Your task to perform on an android device: turn notification dots on Image 0: 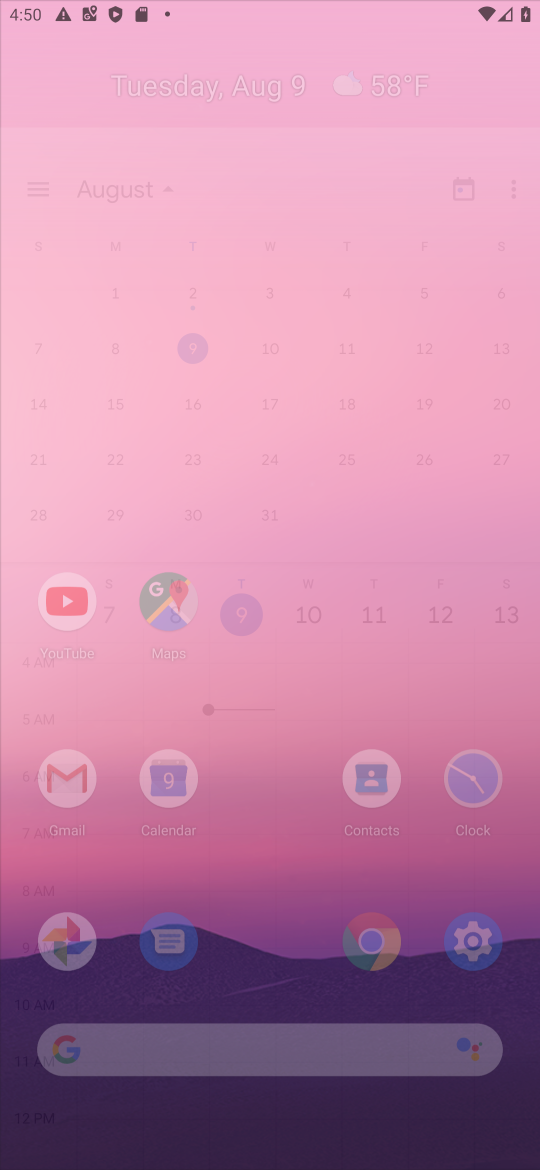
Step 0: press home button
Your task to perform on an android device: turn notification dots on Image 1: 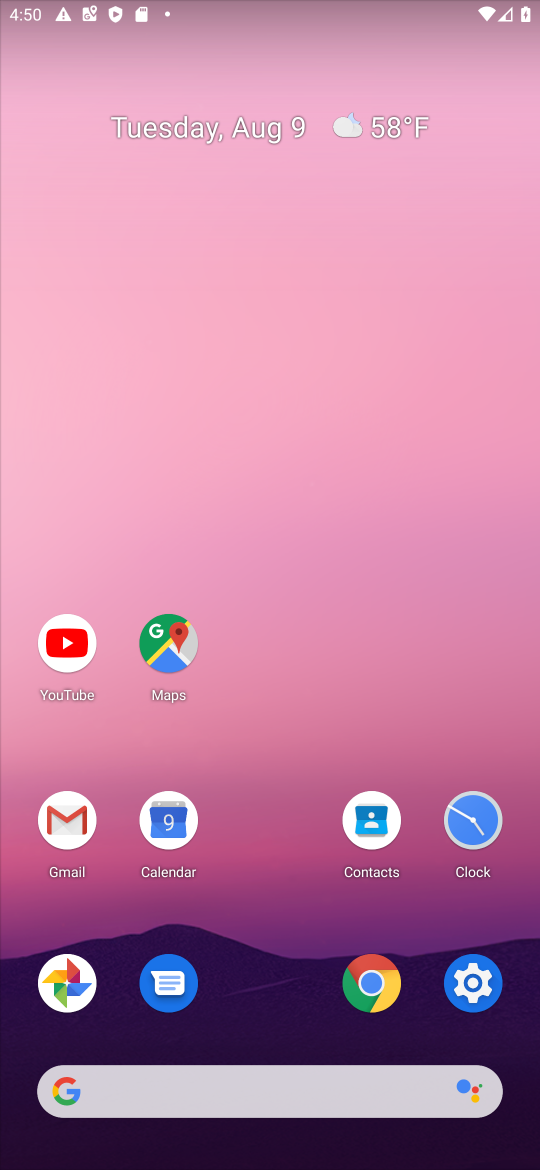
Step 1: click (472, 975)
Your task to perform on an android device: turn notification dots on Image 2: 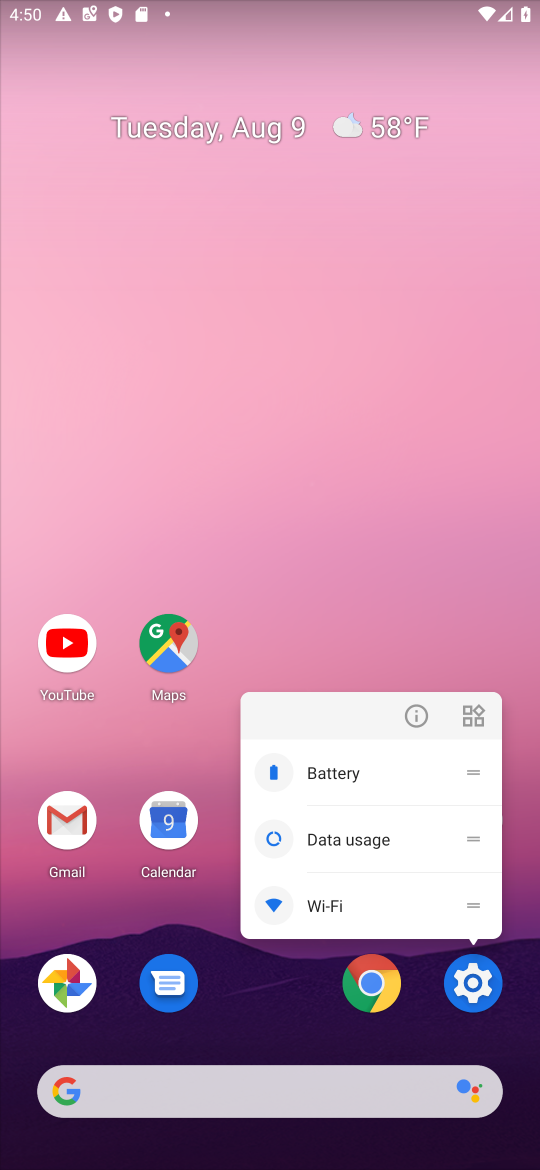
Step 2: click (472, 975)
Your task to perform on an android device: turn notification dots on Image 3: 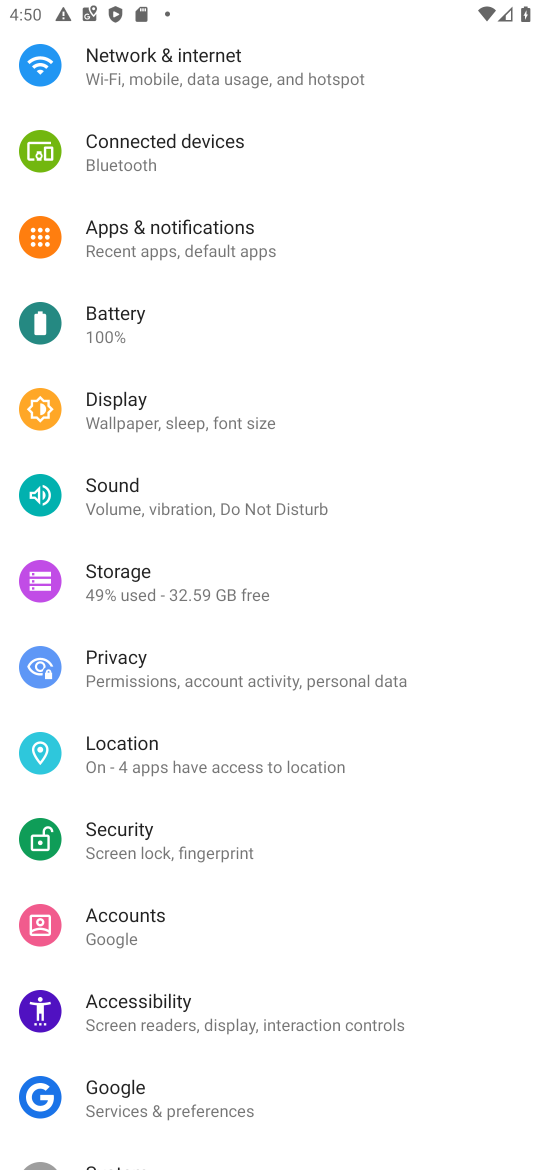
Step 3: click (197, 219)
Your task to perform on an android device: turn notification dots on Image 4: 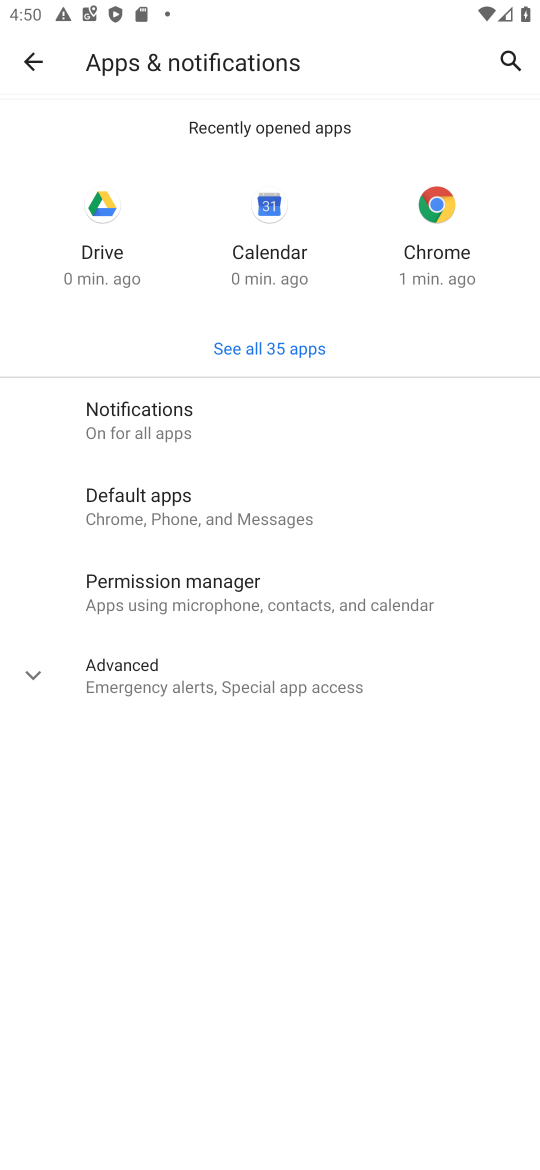
Step 4: click (150, 400)
Your task to perform on an android device: turn notification dots on Image 5: 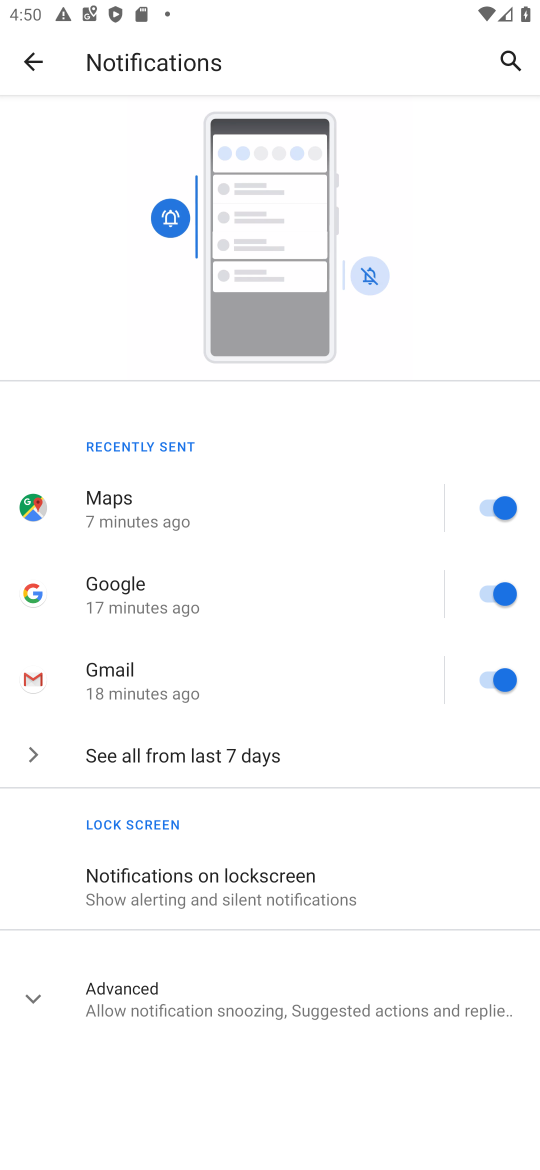
Step 5: click (29, 998)
Your task to perform on an android device: turn notification dots on Image 6: 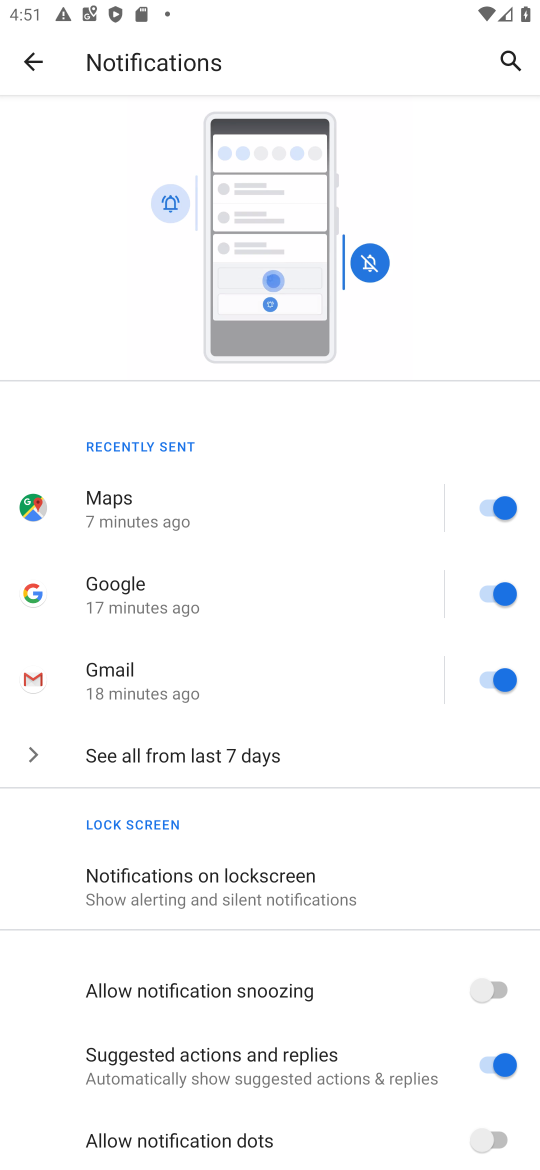
Step 6: click (485, 1141)
Your task to perform on an android device: turn notification dots on Image 7: 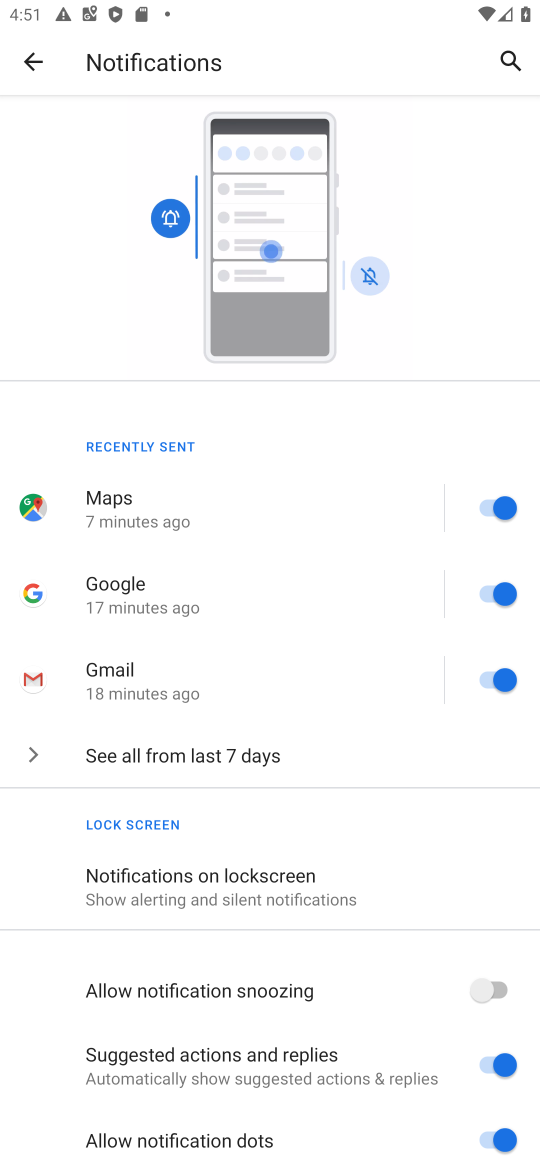
Step 7: task complete